Your task to perform on an android device: find which apps use the phone's location Image 0: 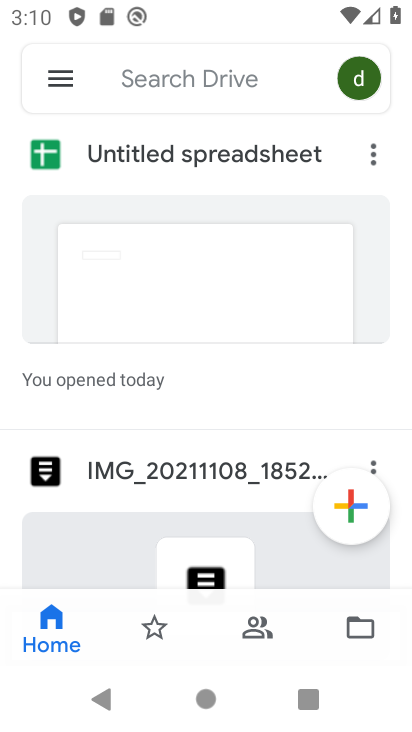
Step 0: press home button
Your task to perform on an android device: find which apps use the phone's location Image 1: 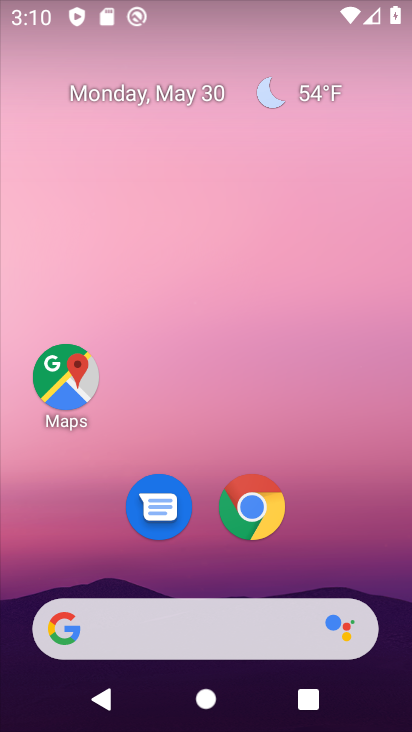
Step 1: drag from (124, 580) to (222, 43)
Your task to perform on an android device: find which apps use the phone's location Image 2: 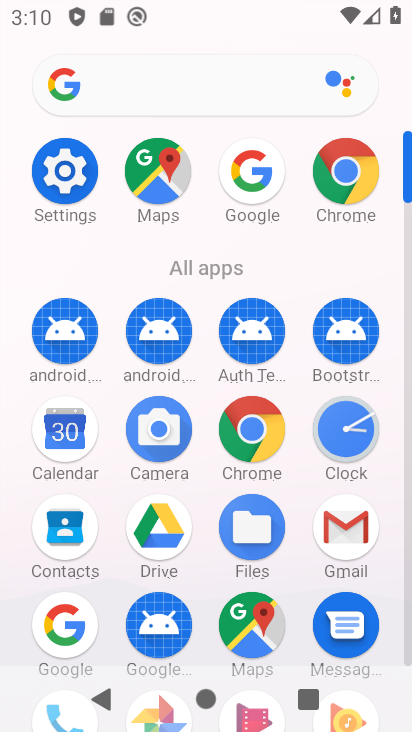
Step 2: drag from (173, 563) to (248, 268)
Your task to perform on an android device: find which apps use the phone's location Image 3: 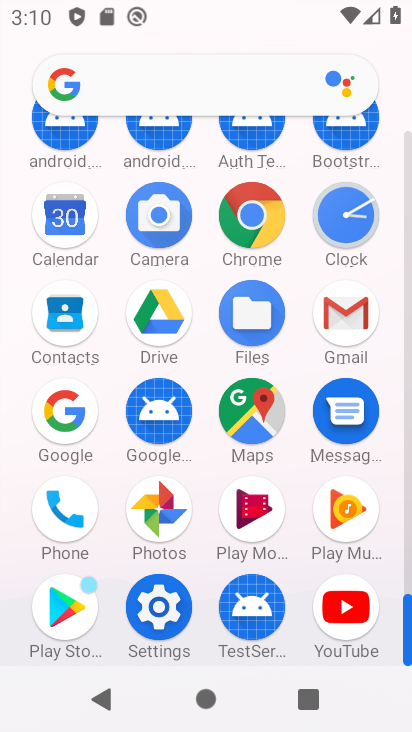
Step 3: click (175, 611)
Your task to perform on an android device: find which apps use the phone's location Image 4: 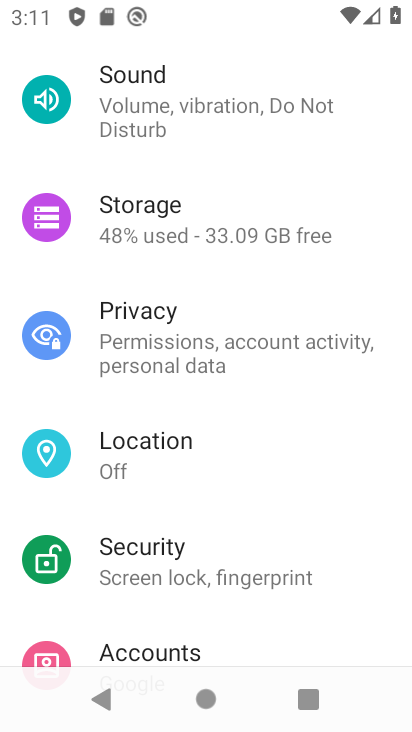
Step 4: drag from (237, 152) to (276, 101)
Your task to perform on an android device: find which apps use the phone's location Image 5: 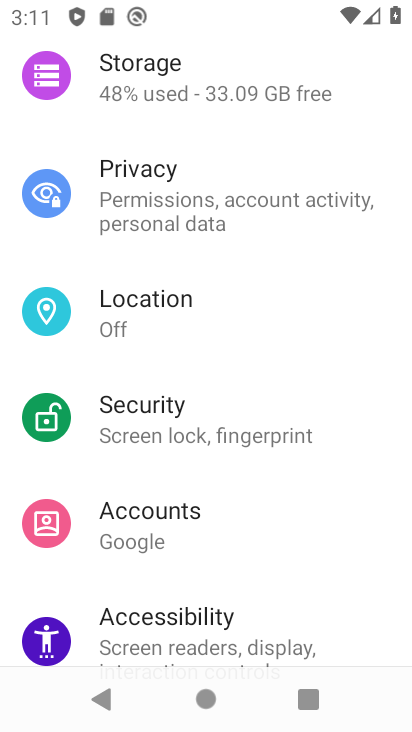
Step 5: click (195, 312)
Your task to perform on an android device: find which apps use the phone's location Image 6: 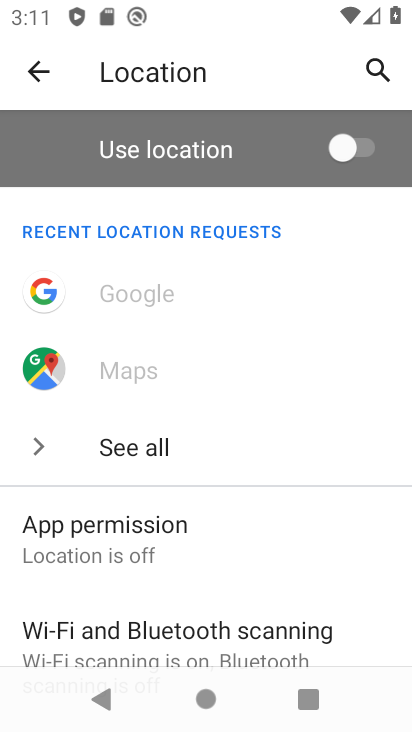
Step 6: click (249, 569)
Your task to perform on an android device: find which apps use the phone's location Image 7: 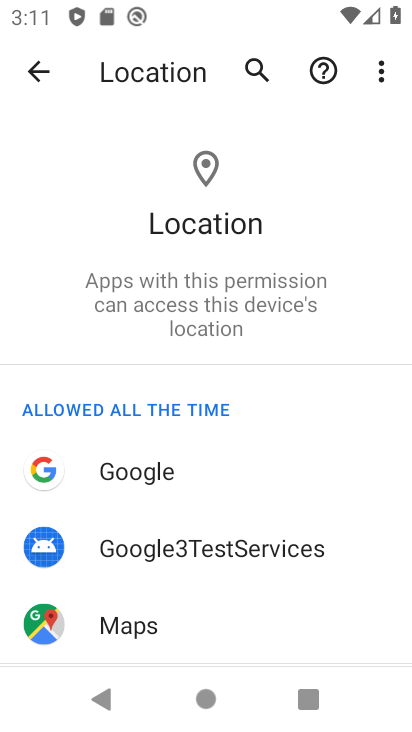
Step 7: task complete